Your task to perform on an android device: turn notification dots on Image 0: 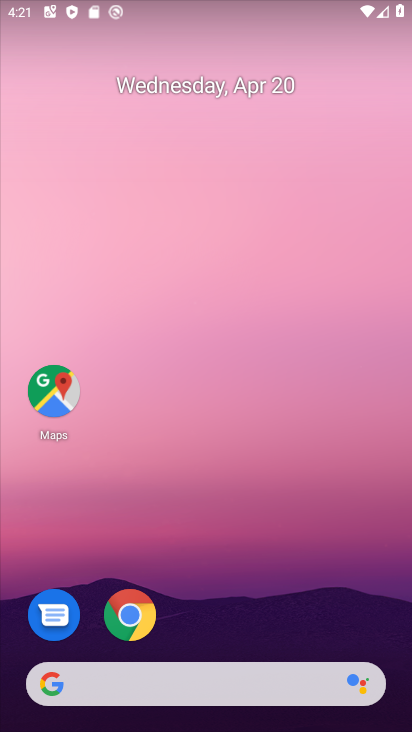
Step 0: drag from (233, 557) to (286, 69)
Your task to perform on an android device: turn notification dots on Image 1: 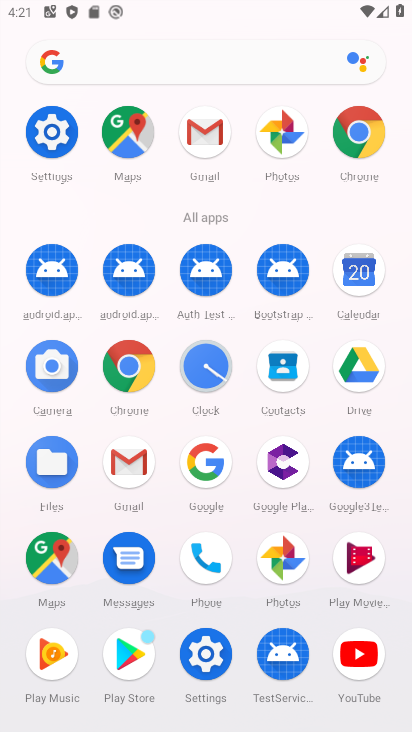
Step 1: click (62, 145)
Your task to perform on an android device: turn notification dots on Image 2: 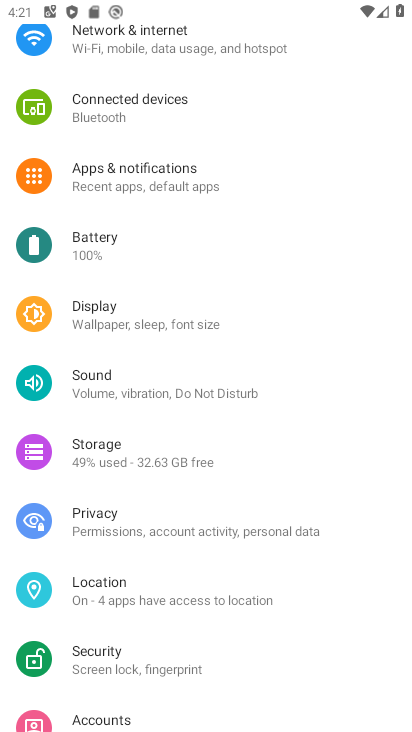
Step 2: click (165, 183)
Your task to perform on an android device: turn notification dots on Image 3: 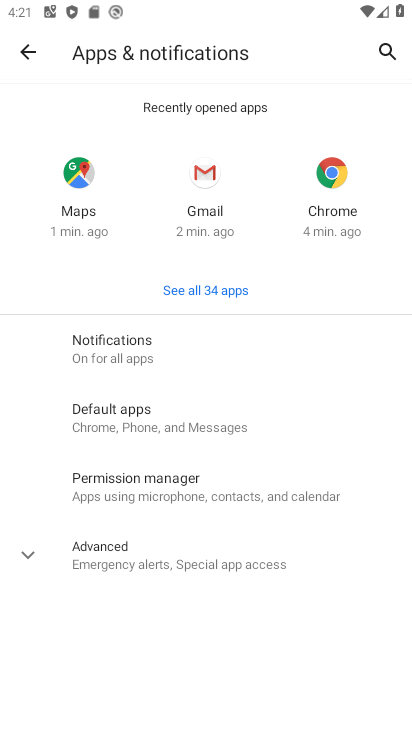
Step 3: click (140, 356)
Your task to perform on an android device: turn notification dots on Image 4: 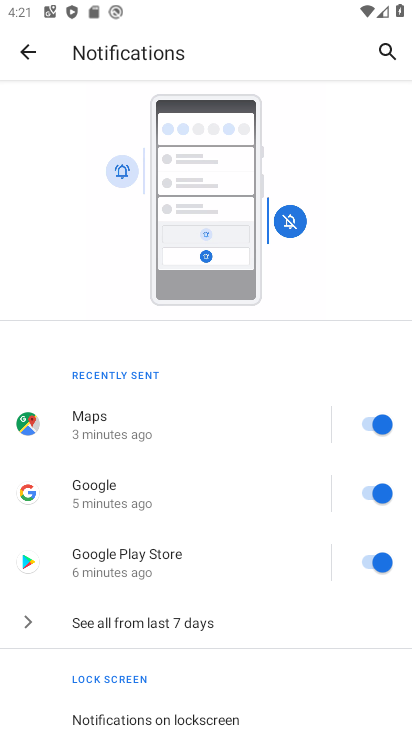
Step 4: drag from (123, 586) to (208, 216)
Your task to perform on an android device: turn notification dots on Image 5: 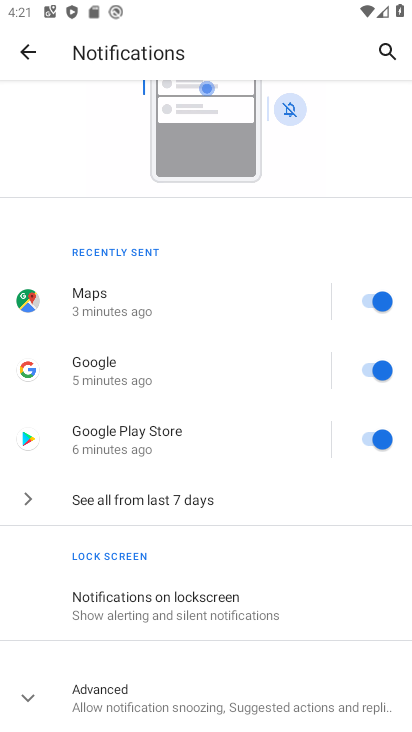
Step 5: click (138, 699)
Your task to perform on an android device: turn notification dots on Image 6: 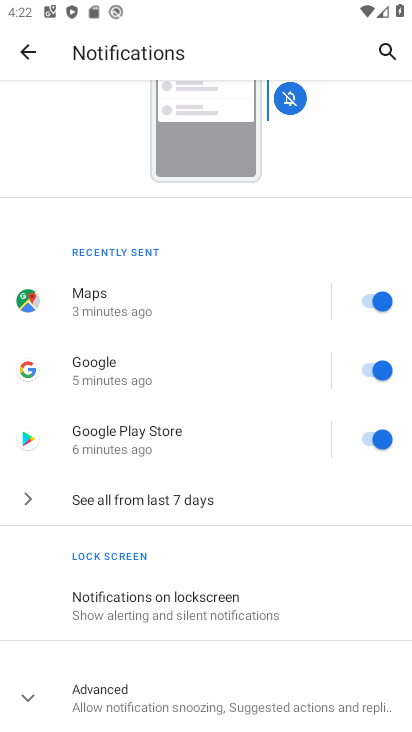
Step 6: click (118, 685)
Your task to perform on an android device: turn notification dots on Image 7: 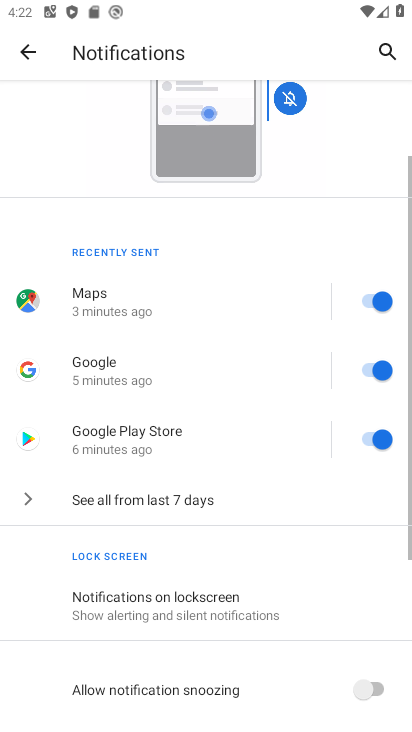
Step 7: task complete